Your task to perform on an android device: How much does a 2 bedroom apartment rent for in Portland? Image 0: 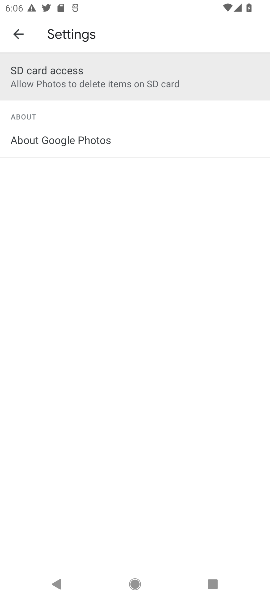
Step 0: click (136, 585)
Your task to perform on an android device: How much does a 2 bedroom apartment rent for in Portland? Image 1: 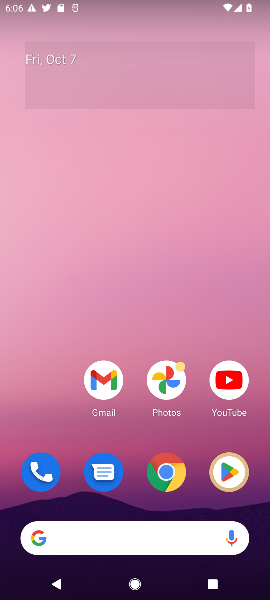
Step 1: click (174, 467)
Your task to perform on an android device: How much does a 2 bedroom apartment rent for in Portland? Image 2: 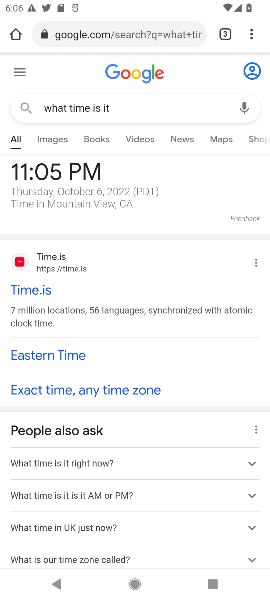
Step 2: click (103, 37)
Your task to perform on an android device: How much does a 2 bedroom apartment rent for in Portland? Image 3: 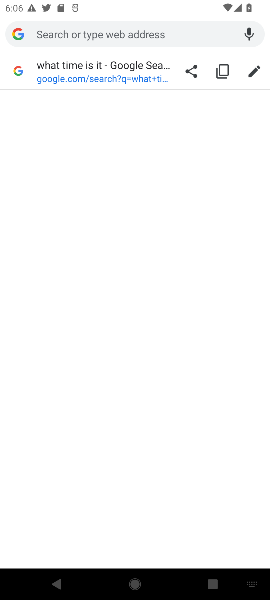
Step 3: type "How much does a 2 bedroom apartment rent for in Portland"
Your task to perform on an android device: How much does a 2 bedroom apartment rent for in Portland? Image 4: 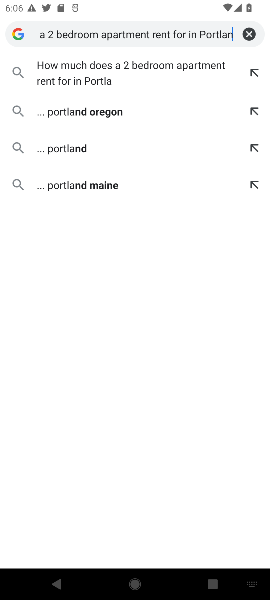
Step 4: type ""
Your task to perform on an android device: How much does a 2 bedroom apartment rent for in Portland? Image 5: 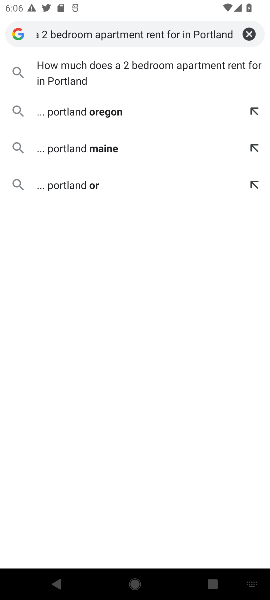
Step 5: click (98, 67)
Your task to perform on an android device: How much does a 2 bedroom apartment rent for in Portland? Image 6: 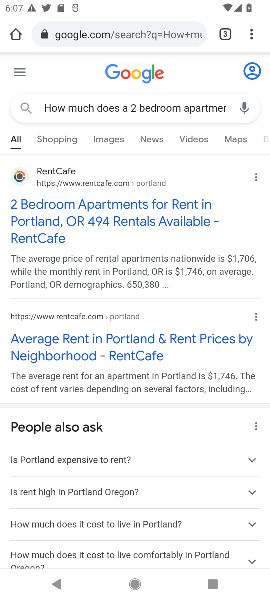
Step 6: click (89, 342)
Your task to perform on an android device: How much does a 2 bedroom apartment rent for in Portland? Image 7: 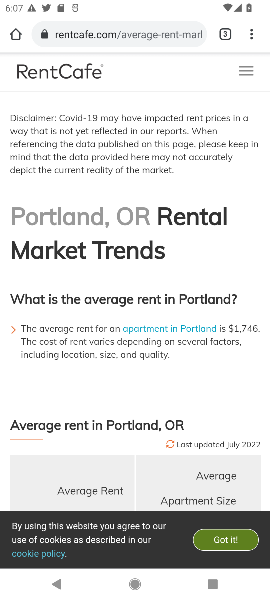
Step 7: task complete